Your task to perform on an android device: turn off location Image 0: 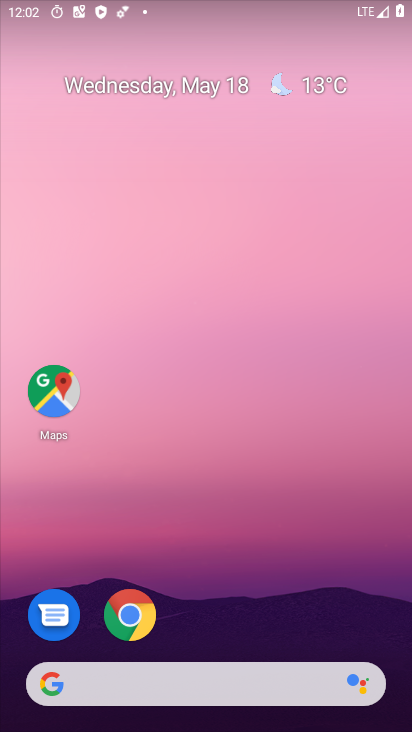
Step 0: press home button
Your task to perform on an android device: turn off location Image 1: 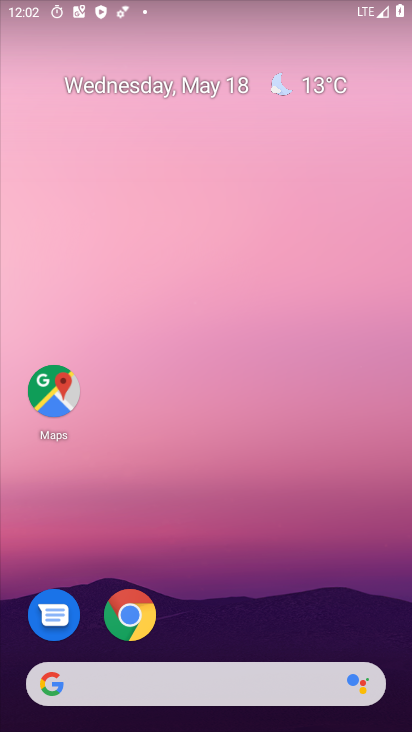
Step 1: drag from (133, 687) to (266, 149)
Your task to perform on an android device: turn off location Image 2: 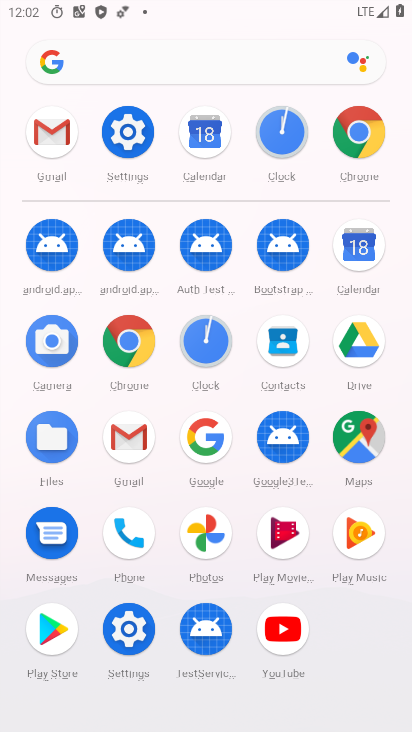
Step 2: click (136, 136)
Your task to perform on an android device: turn off location Image 3: 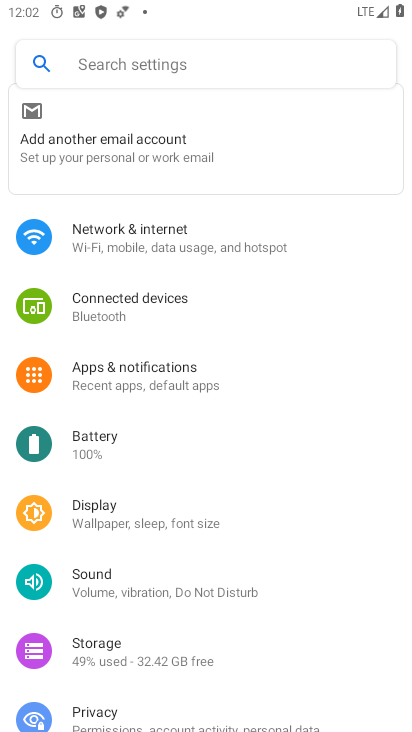
Step 3: drag from (232, 553) to (304, 270)
Your task to perform on an android device: turn off location Image 4: 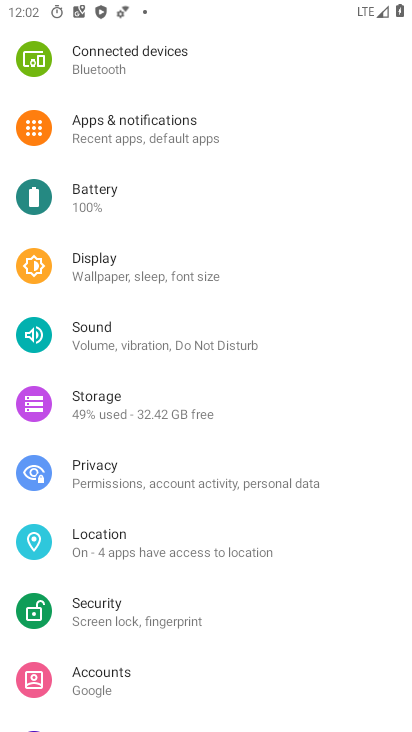
Step 4: click (149, 547)
Your task to perform on an android device: turn off location Image 5: 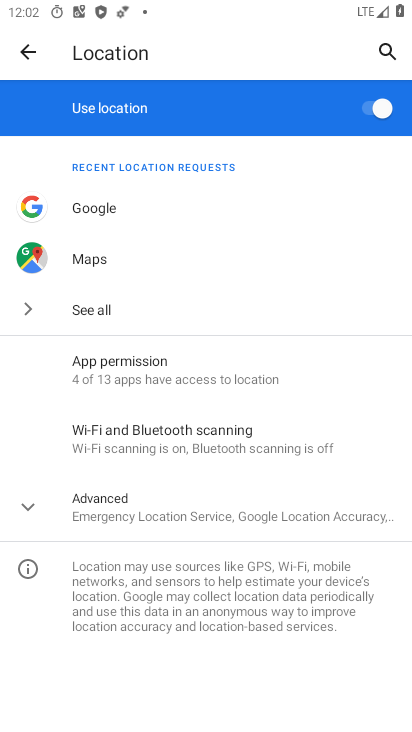
Step 5: click (367, 112)
Your task to perform on an android device: turn off location Image 6: 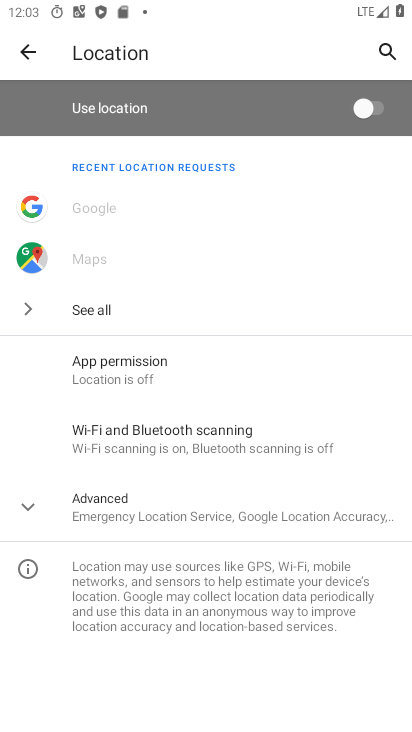
Step 6: task complete